Your task to perform on an android device: Open sound settings Image 0: 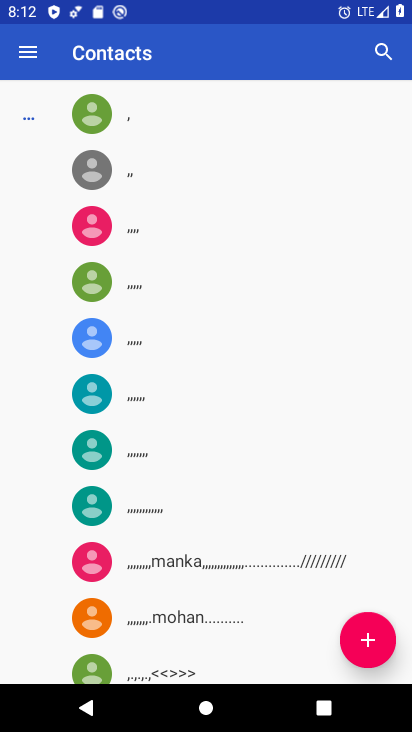
Step 0: press home button
Your task to perform on an android device: Open sound settings Image 1: 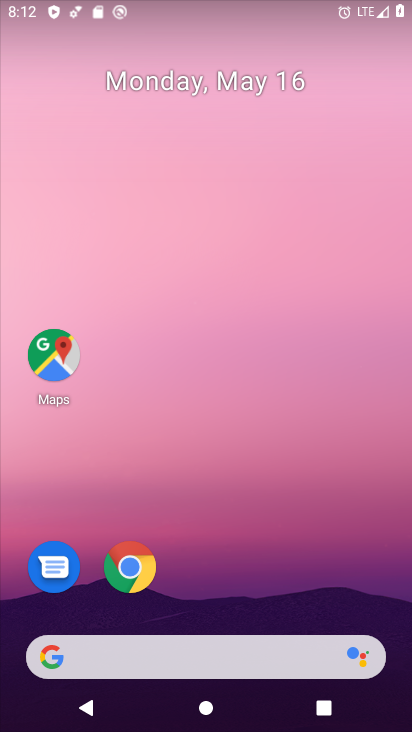
Step 1: drag from (187, 562) to (184, 181)
Your task to perform on an android device: Open sound settings Image 2: 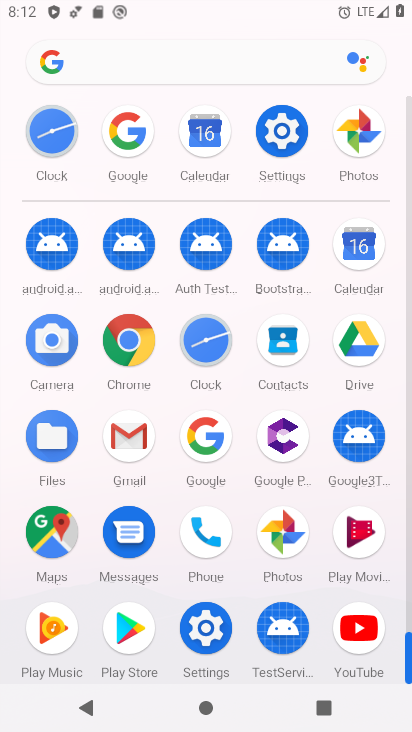
Step 2: click (274, 151)
Your task to perform on an android device: Open sound settings Image 3: 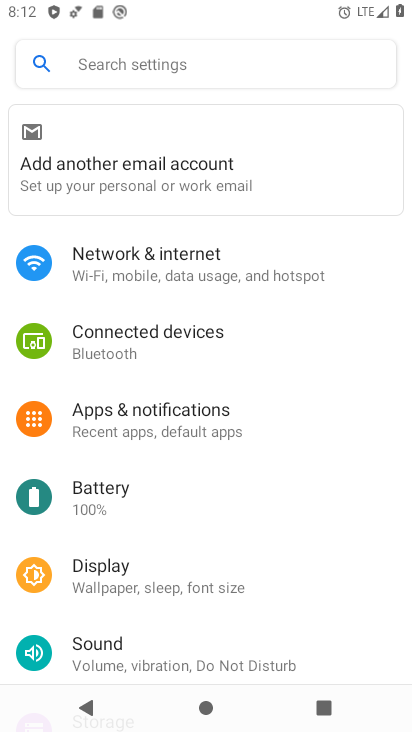
Step 3: click (131, 679)
Your task to perform on an android device: Open sound settings Image 4: 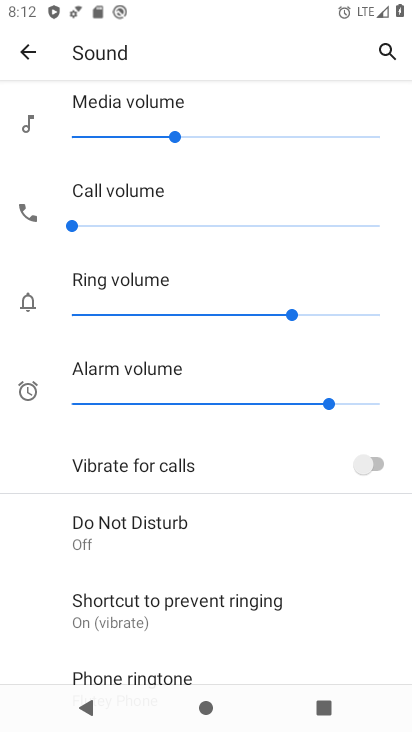
Step 4: task complete